Your task to perform on an android device: turn off airplane mode Image 0: 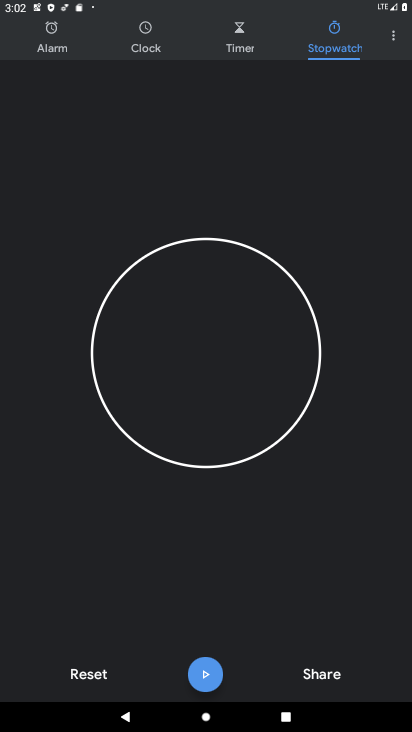
Step 0: press home button
Your task to perform on an android device: turn off airplane mode Image 1: 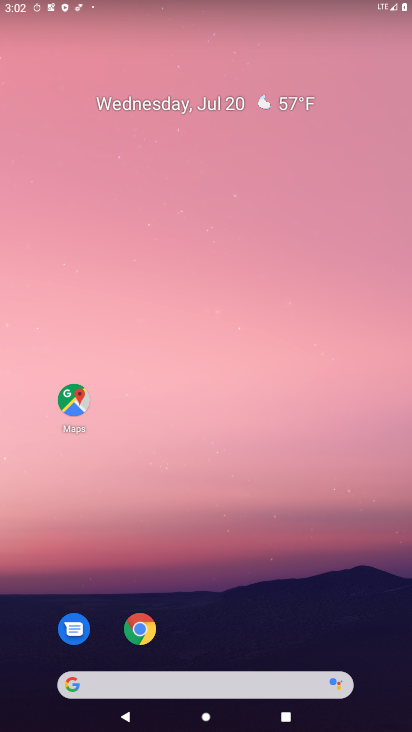
Step 1: drag from (205, 688) to (137, 45)
Your task to perform on an android device: turn off airplane mode Image 2: 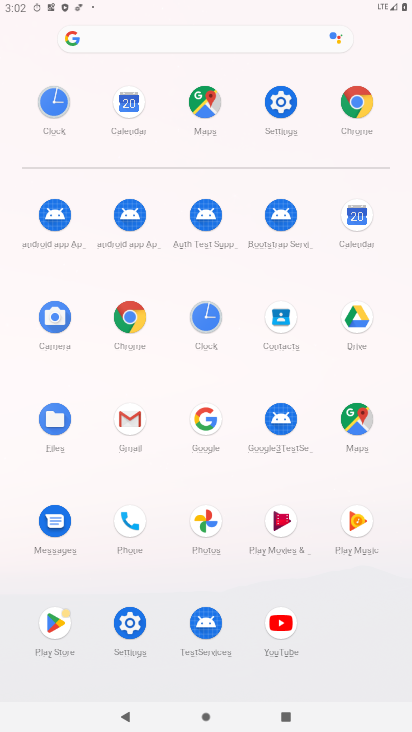
Step 2: click (273, 118)
Your task to perform on an android device: turn off airplane mode Image 3: 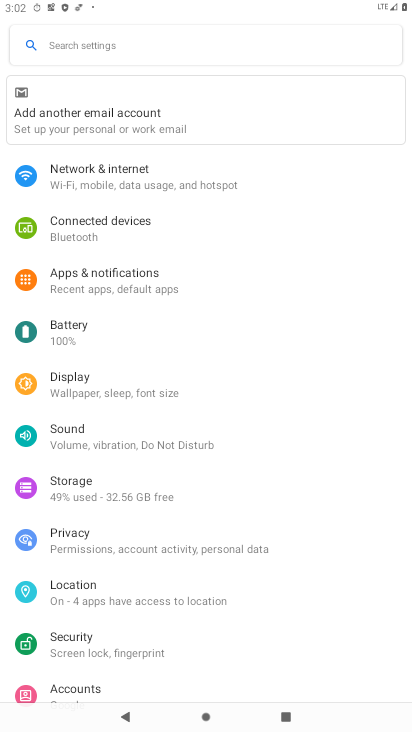
Step 3: click (94, 179)
Your task to perform on an android device: turn off airplane mode Image 4: 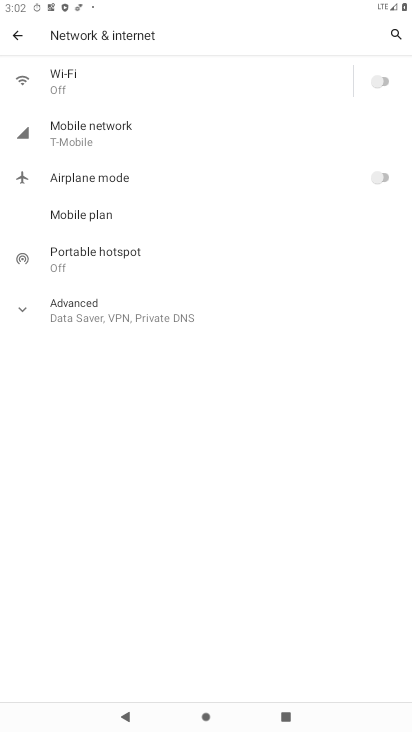
Step 4: task complete